Your task to perform on an android device: Set the phone to "Do not disturb". Image 0: 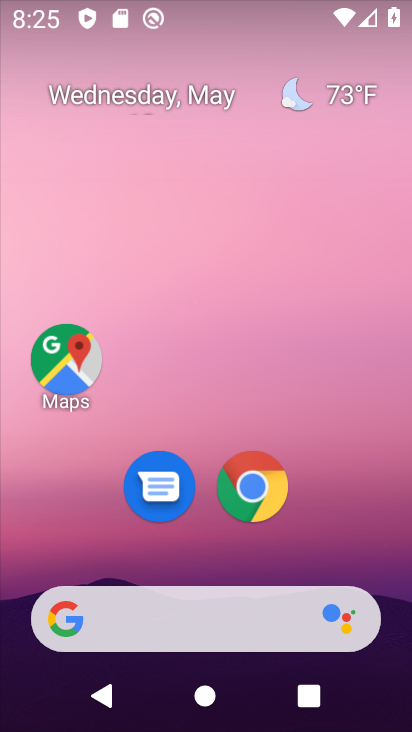
Step 0: drag from (397, 610) to (339, 203)
Your task to perform on an android device: Set the phone to "Do not disturb". Image 1: 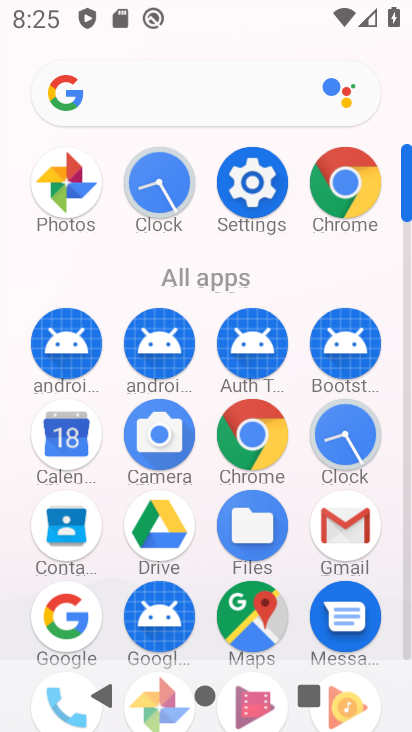
Step 1: click (405, 651)
Your task to perform on an android device: Set the phone to "Do not disturb". Image 2: 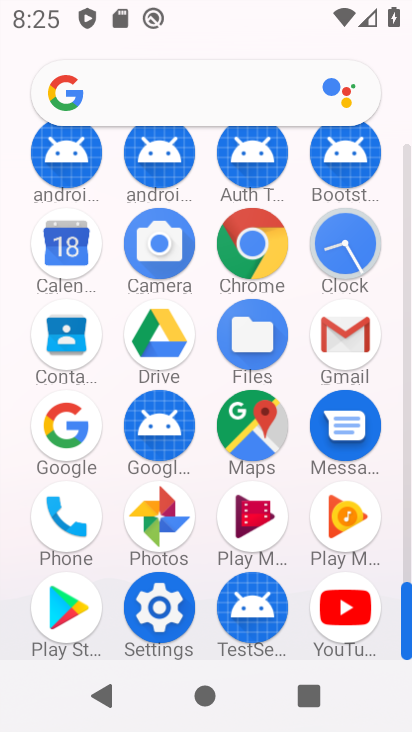
Step 2: click (159, 613)
Your task to perform on an android device: Set the phone to "Do not disturb". Image 3: 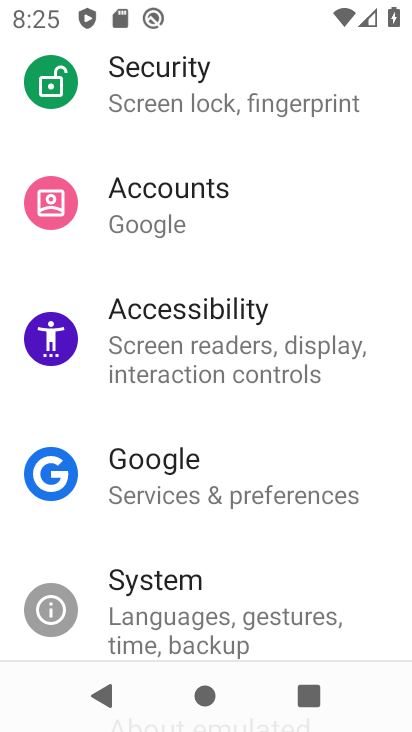
Step 3: drag from (344, 190) to (341, 445)
Your task to perform on an android device: Set the phone to "Do not disturb". Image 4: 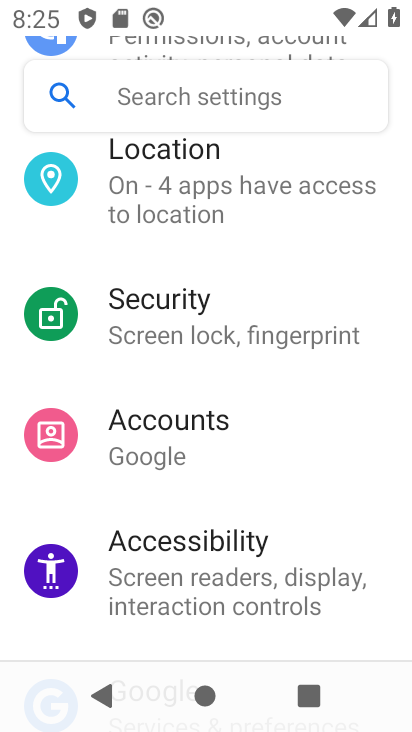
Step 4: drag from (362, 231) to (348, 519)
Your task to perform on an android device: Set the phone to "Do not disturb". Image 5: 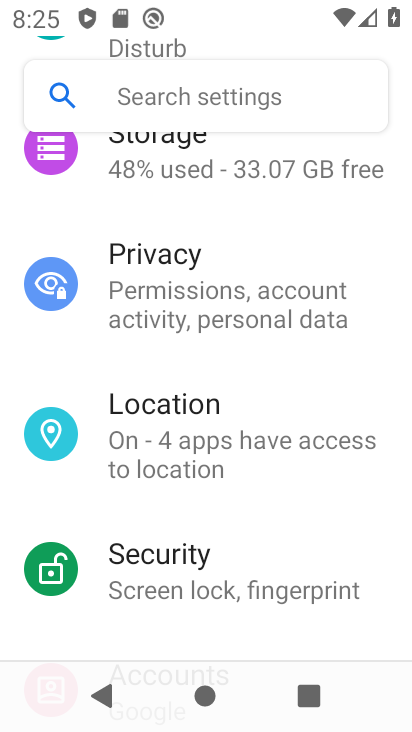
Step 5: drag from (351, 296) to (332, 534)
Your task to perform on an android device: Set the phone to "Do not disturb". Image 6: 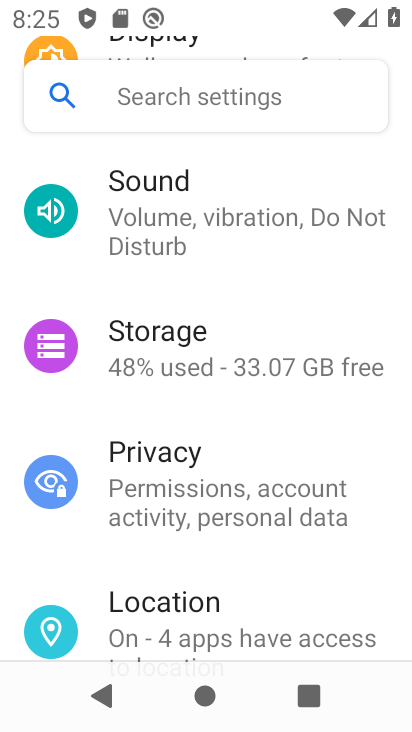
Step 6: click (145, 222)
Your task to perform on an android device: Set the phone to "Do not disturb". Image 7: 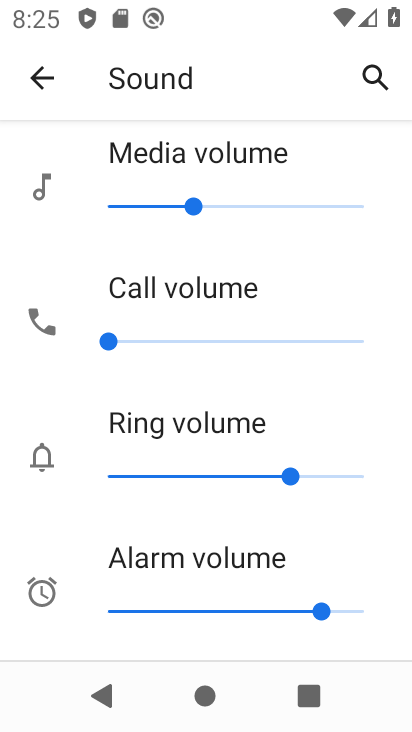
Step 7: drag from (328, 607) to (315, 262)
Your task to perform on an android device: Set the phone to "Do not disturb". Image 8: 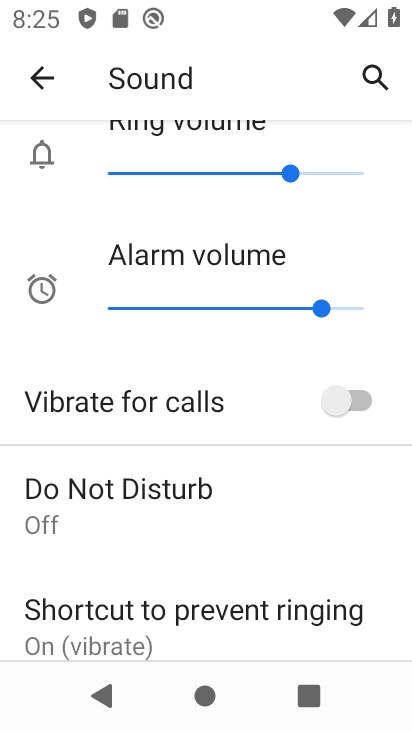
Step 8: click (76, 505)
Your task to perform on an android device: Set the phone to "Do not disturb". Image 9: 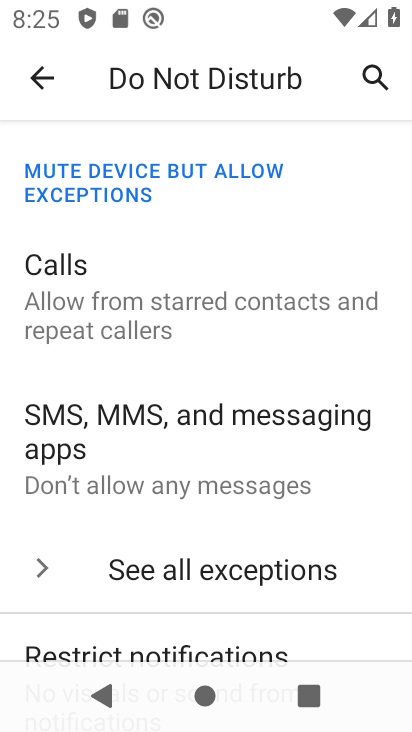
Step 9: drag from (245, 576) to (245, 248)
Your task to perform on an android device: Set the phone to "Do not disturb". Image 10: 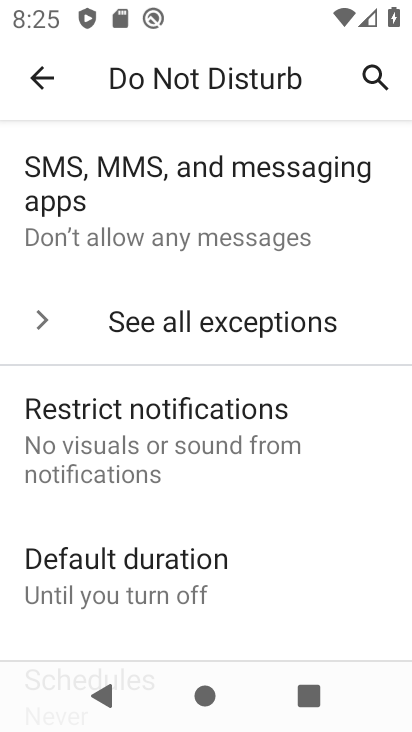
Step 10: drag from (221, 582) to (210, 261)
Your task to perform on an android device: Set the phone to "Do not disturb". Image 11: 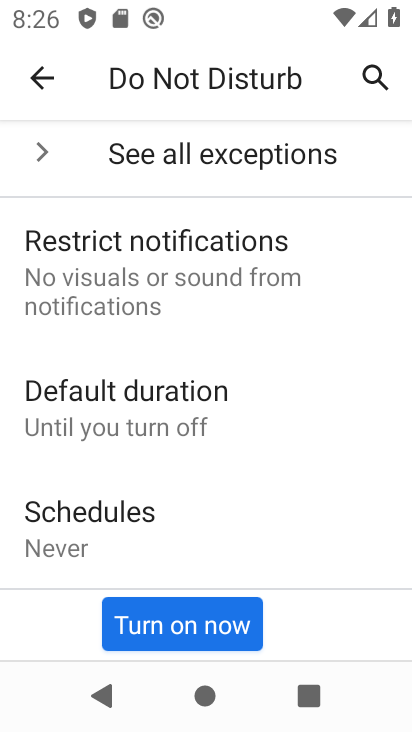
Step 11: click (158, 621)
Your task to perform on an android device: Set the phone to "Do not disturb". Image 12: 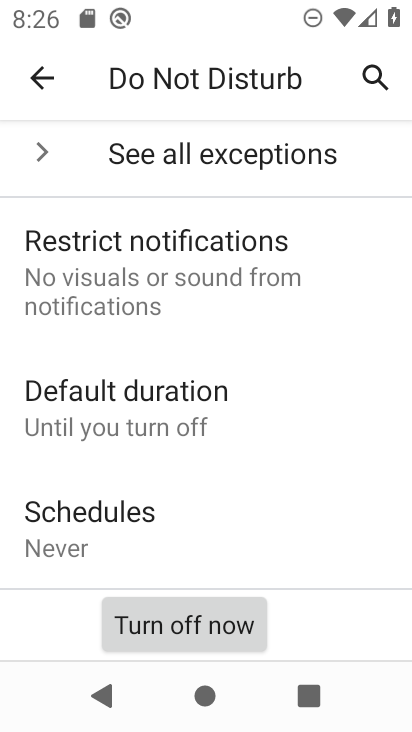
Step 12: task complete